Your task to perform on an android device: Add duracell triple a to the cart on newegg.com, then select checkout. Image 0: 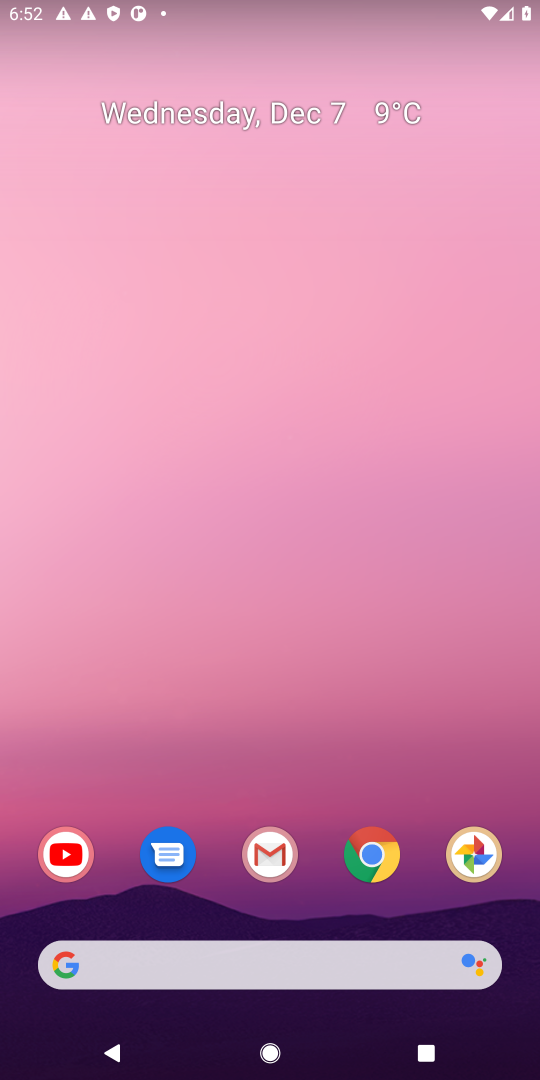
Step 0: click (378, 980)
Your task to perform on an android device: Add duracell triple a to the cart on newegg.com, then select checkout. Image 1: 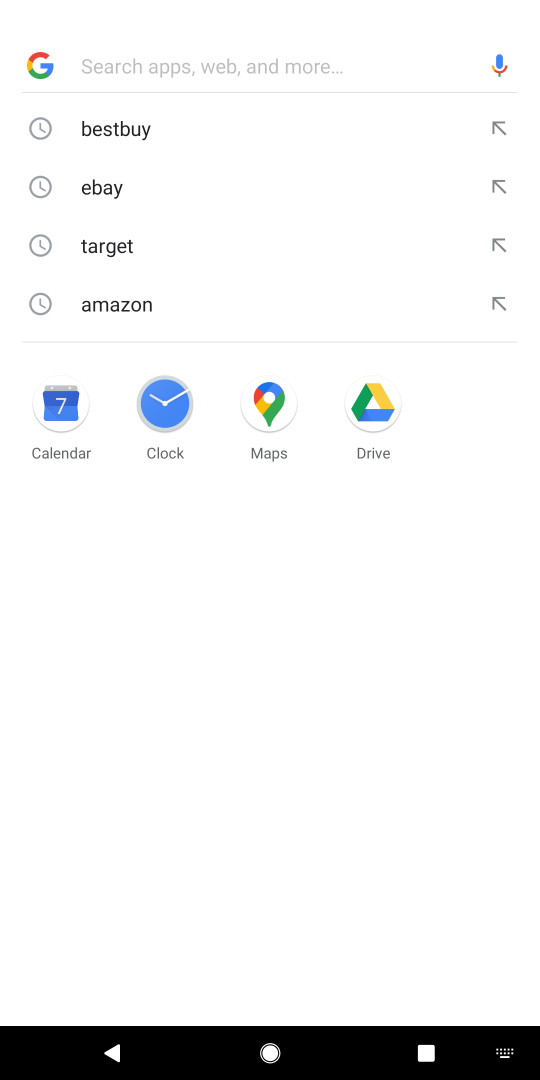
Step 1: type "newegg"
Your task to perform on an android device: Add duracell triple a to the cart on newegg.com, then select checkout. Image 2: 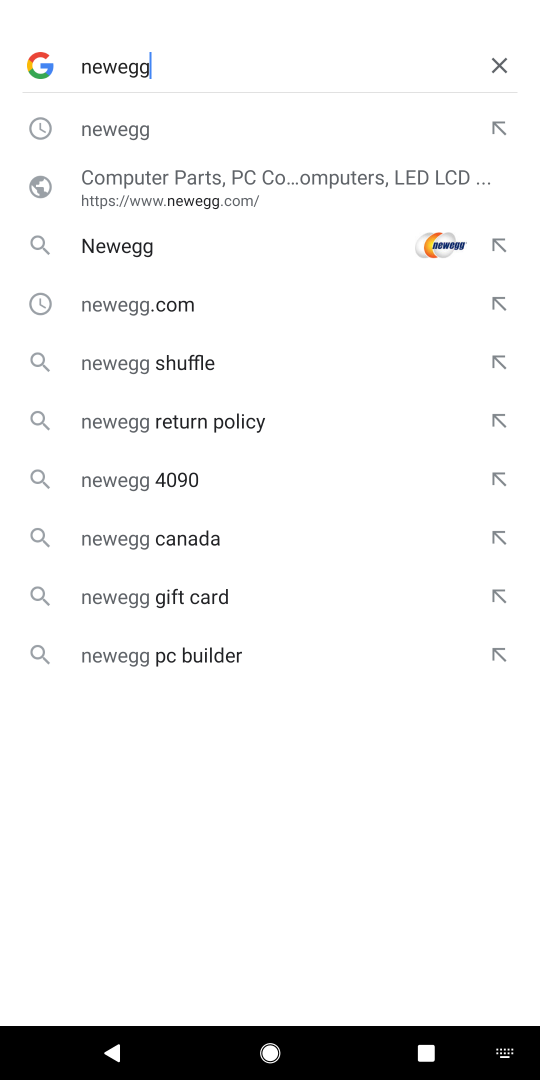
Step 2: click (154, 250)
Your task to perform on an android device: Add duracell triple a to the cart on newegg.com, then select checkout. Image 3: 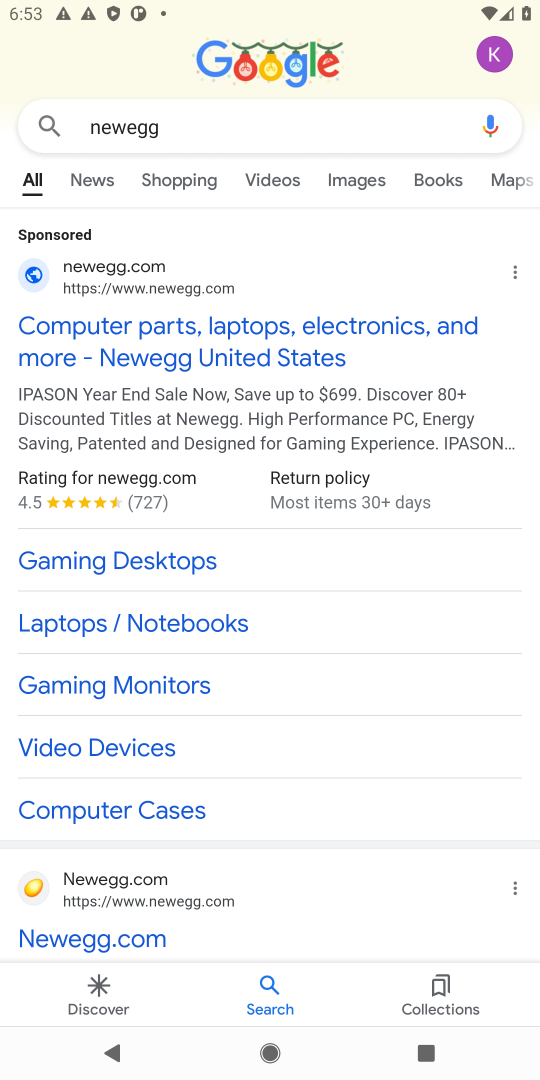
Step 3: click (145, 320)
Your task to perform on an android device: Add duracell triple a to the cart on newegg.com, then select checkout. Image 4: 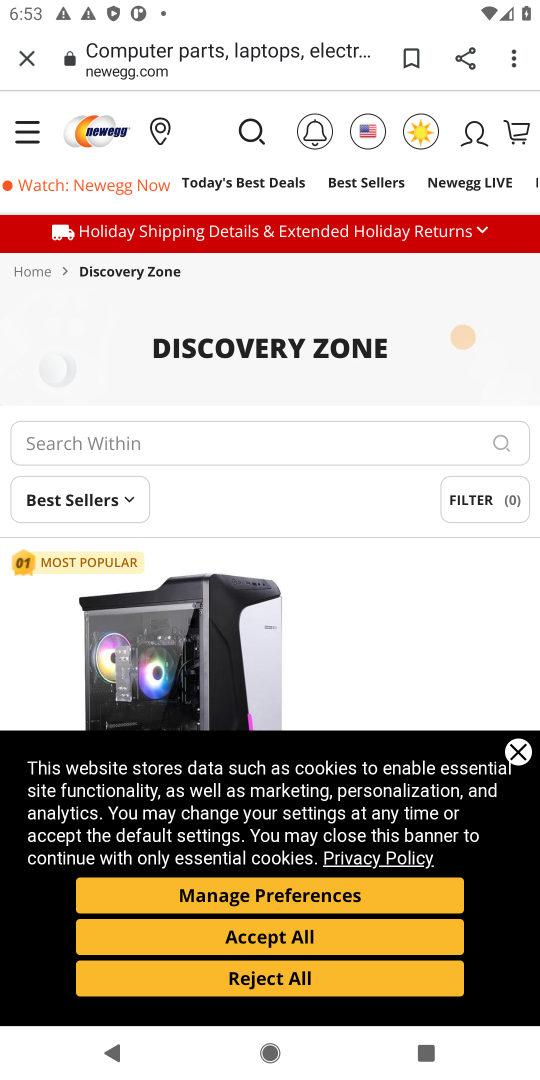
Step 4: click (269, 928)
Your task to perform on an android device: Add duracell triple a to the cart on newegg.com, then select checkout. Image 5: 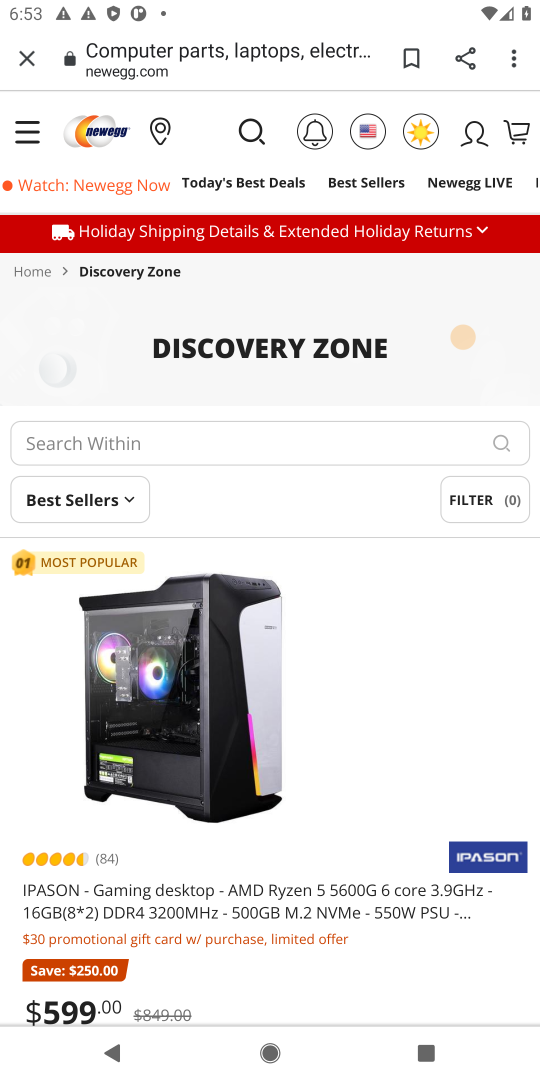
Step 5: task complete